Your task to perform on an android device: What's on my calendar tomorrow? Image 0: 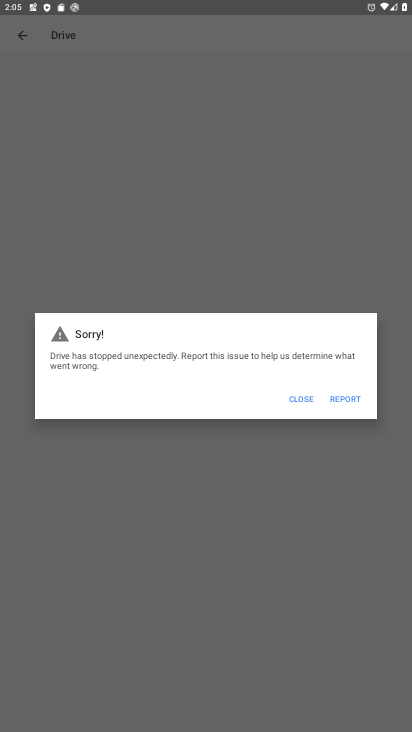
Step 0: click (50, 701)
Your task to perform on an android device: What's on my calendar tomorrow? Image 1: 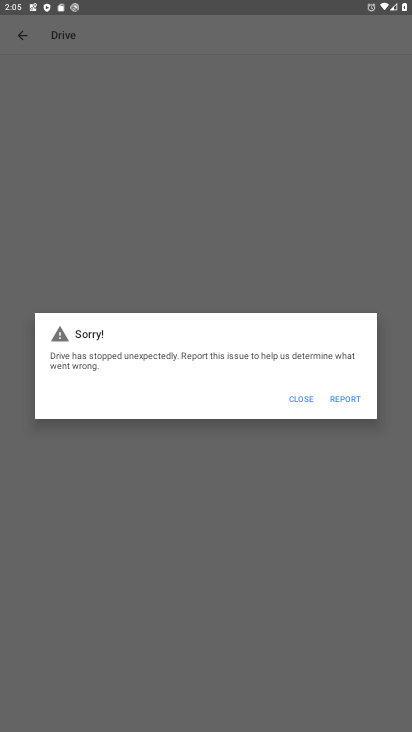
Step 1: press home button
Your task to perform on an android device: What's on my calendar tomorrow? Image 2: 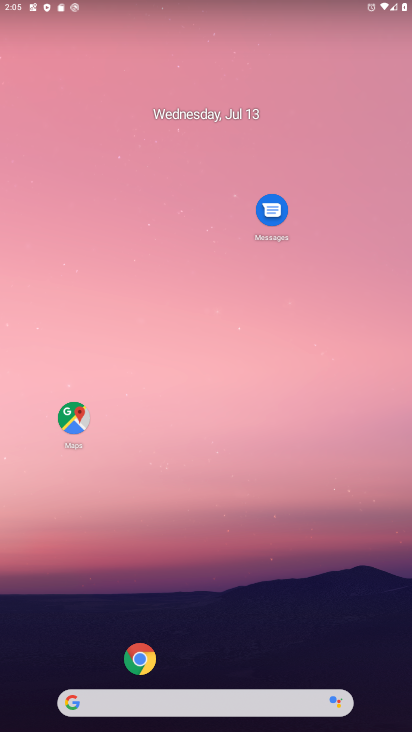
Step 2: drag from (47, 676) to (194, 44)
Your task to perform on an android device: What's on my calendar tomorrow? Image 3: 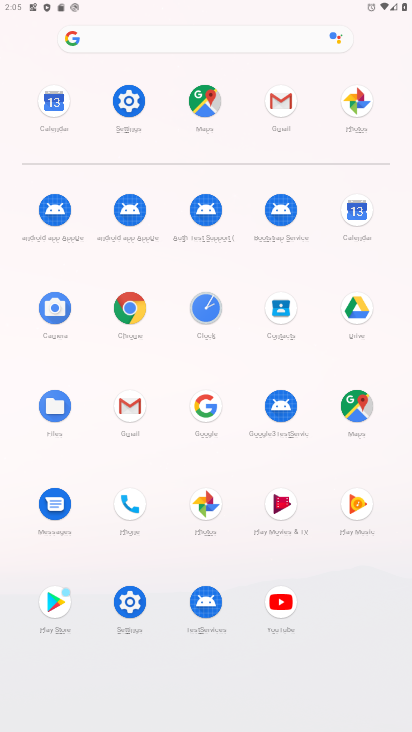
Step 3: click (362, 213)
Your task to perform on an android device: What's on my calendar tomorrow? Image 4: 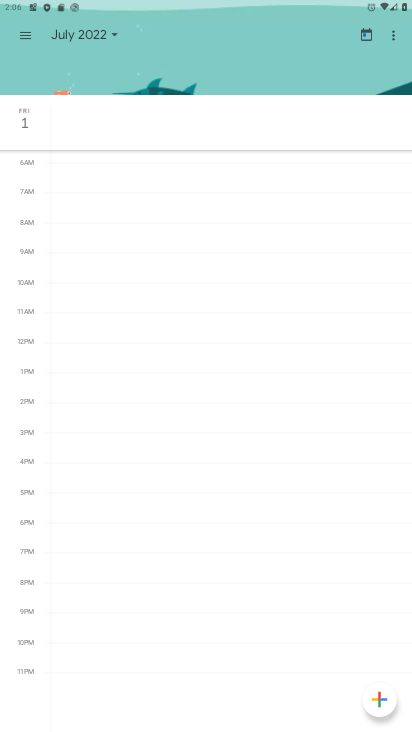
Step 4: click (62, 31)
Your task to perform on an android device: What's on my calendar tomorrow? Image 5: 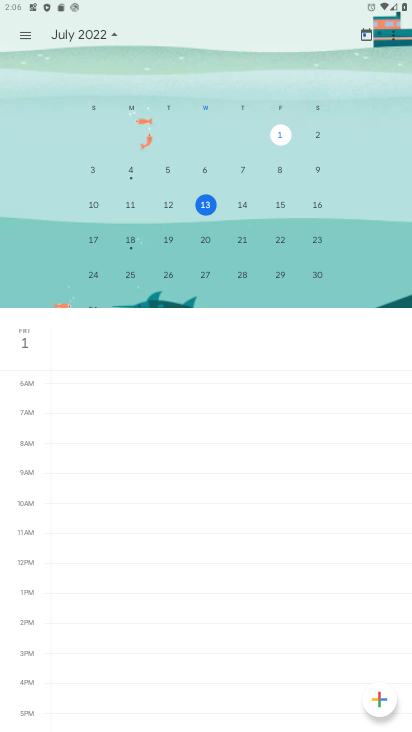
Step 5: task complete